Your task to perform on an android device: visit the assistant section in the google photos Image 0: 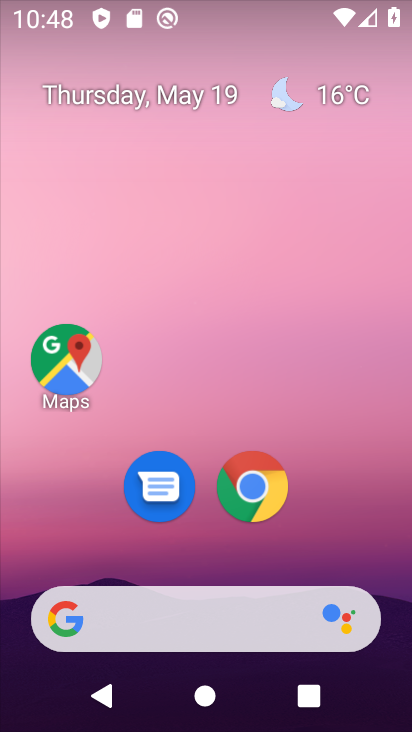
Step 0: drag from (340, 557) to (311, 127)
Your task to perform on an android device: visit the assistant section in the google photos Image 1: 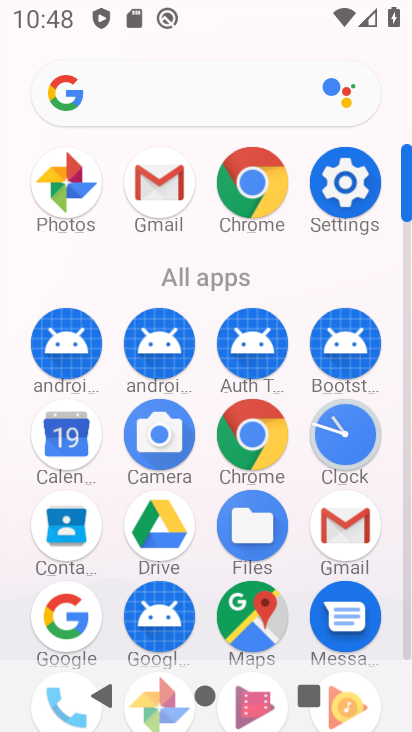
Step 1: click (409, 649)
Your task to perform on an android device: visit the assistant section in the google photos Image 2: 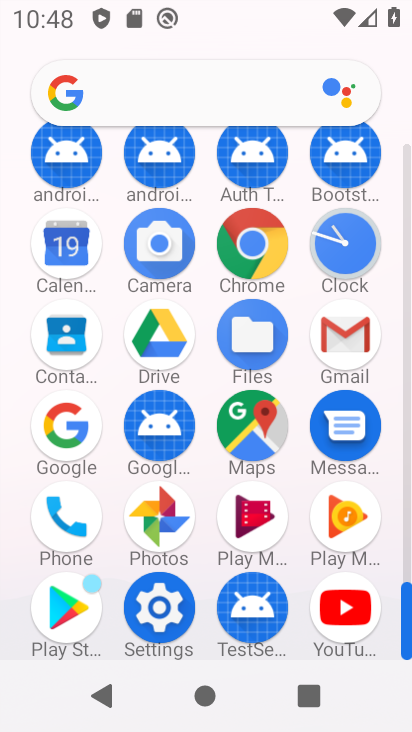
Step 2: click (174, 540)
Your task to perform on an android device: visit the assistant section in the google photos Image 3: 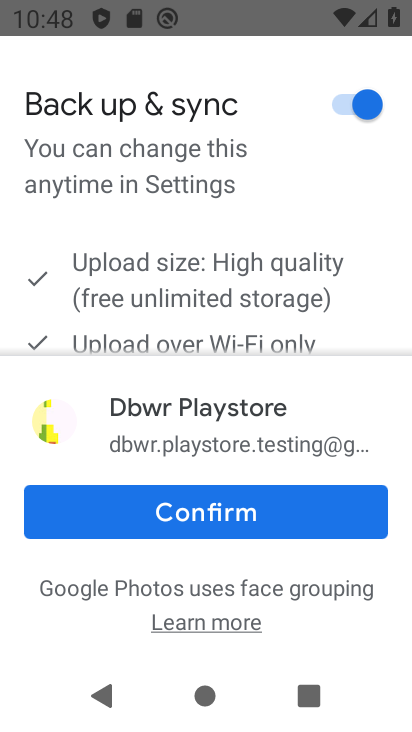
Step 3: click (212, 503)
Your task to perform on an android device: visit the assistant section in the google photos Image 4: 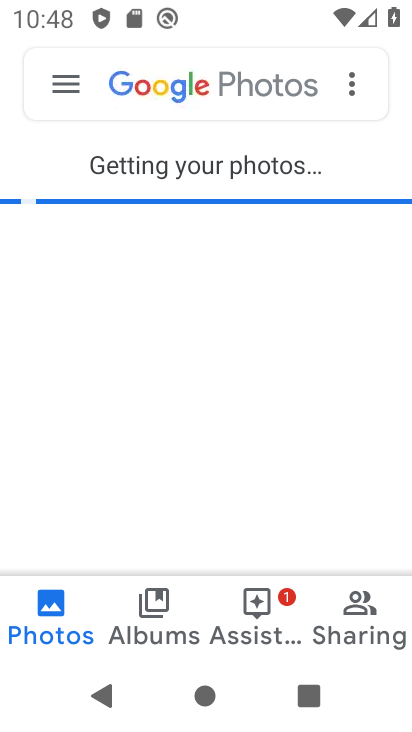
Step 4: click (245, 605)
Your task to perform on an android device: visit the assistant section in the google photos Image 5: 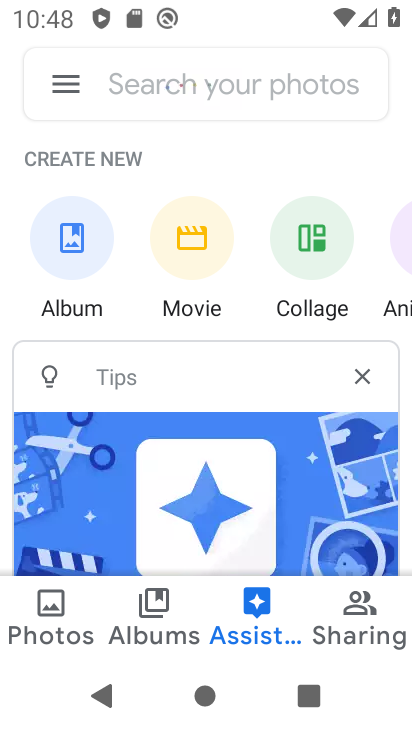
Step 5: task complete